Your task to perform on an android device: allow cookies in the chrome app Image 0: 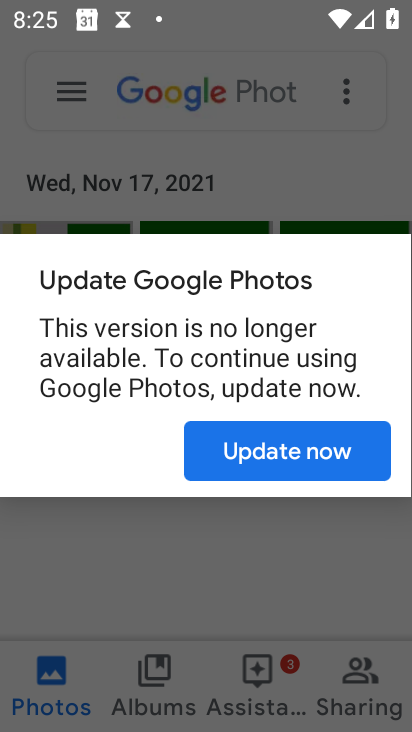
Step 0: press home button
Your task to perform on an android device: allow cookies in the chrome app Image 1: 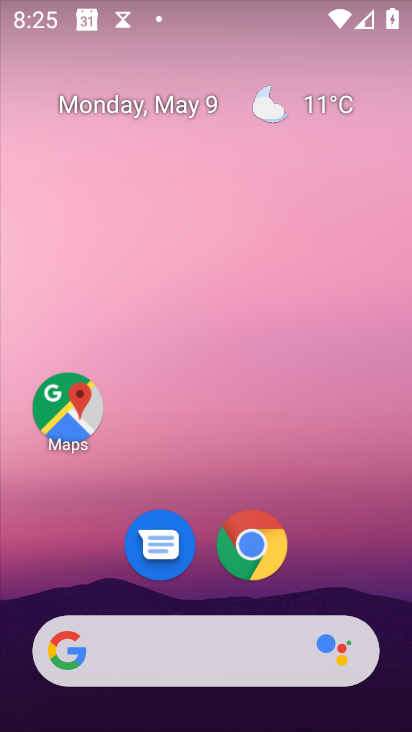
Step 1: click (245, 548)
Your task to perform on an android device: allow cookies in the chrome app Image 2: 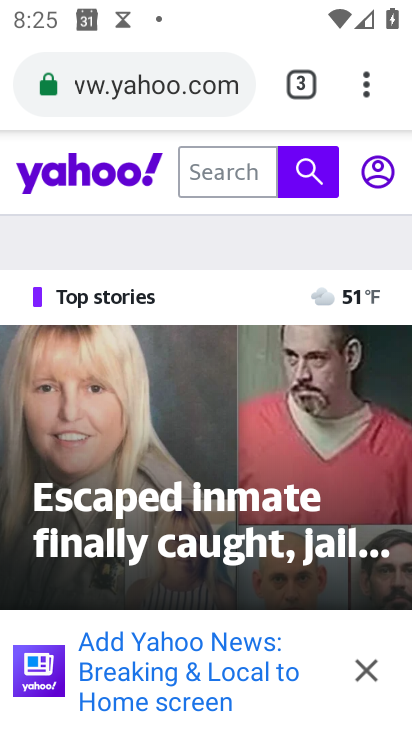
Step 2: click (367, 97)
Your task to perform on an android device: allow cookies in the chrome app Image 3: 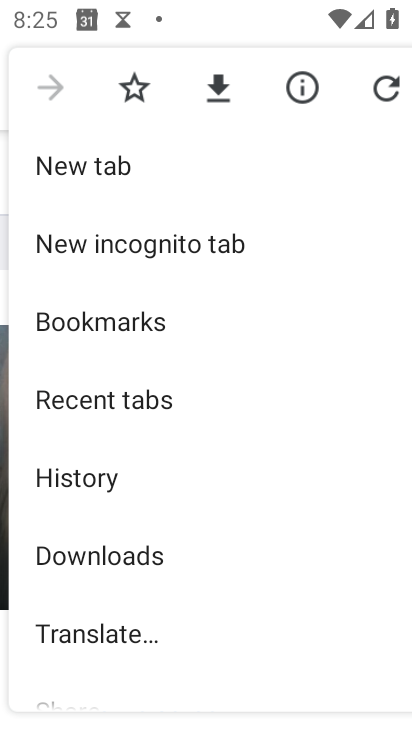
Step 3: drag from (178, 621) to (222, 329)
Your task to perform on an android device: allow cookies in the chrome app Image 4: 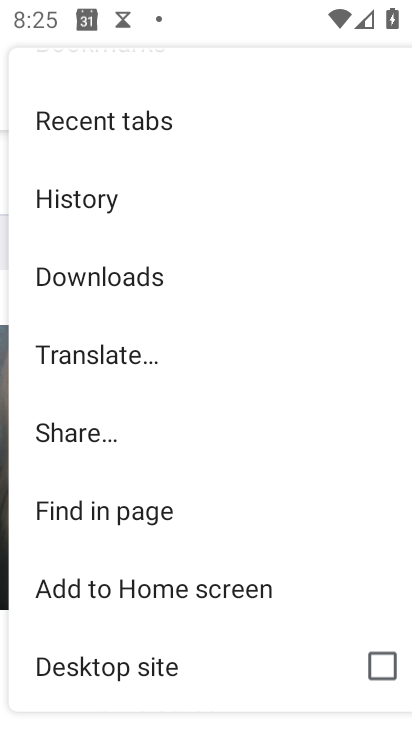
Step 4: drag from (210, 648) to (216, 300)
Your task to perform on an android device: allow cookies in the chrome app Image 5: 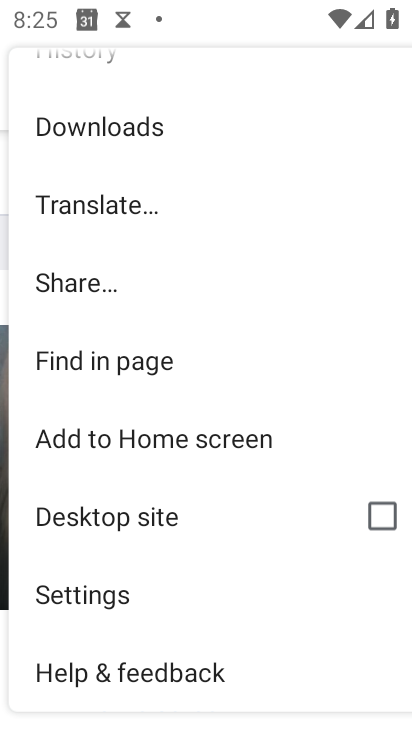
Step 5: click (108, 594)
Your task to perform on an android device: allow cookies in the chrome app Image 6: 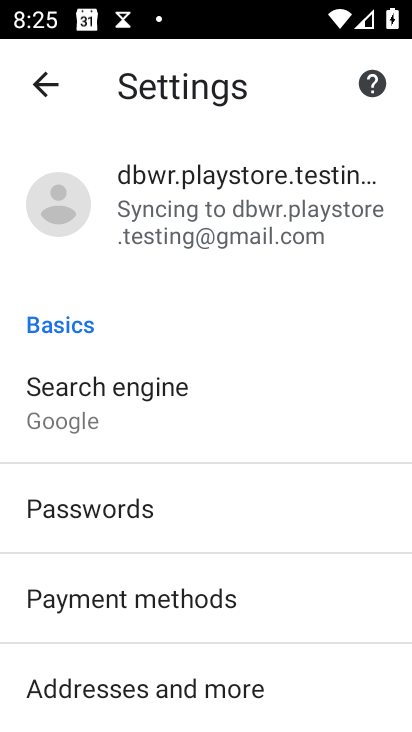
Step 6: drag from (186, 661) to (202, 228)
Your task to perform on an android device: allow cookies in the chrome app Image 7: 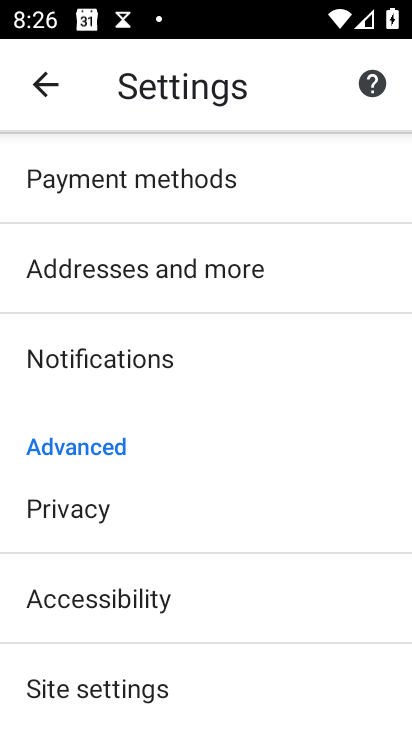
Step 7: drag from (261, 666) to (264, 308)
Your task to perform on an android device: allow cookies in the chrome app Image 8: 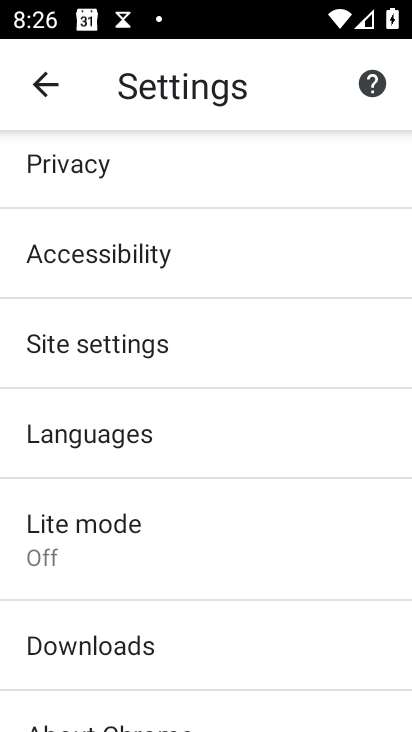
Step 8: click (141, 344)
Your task to perform on an android device: allow cookies in the chrome app Image 9: 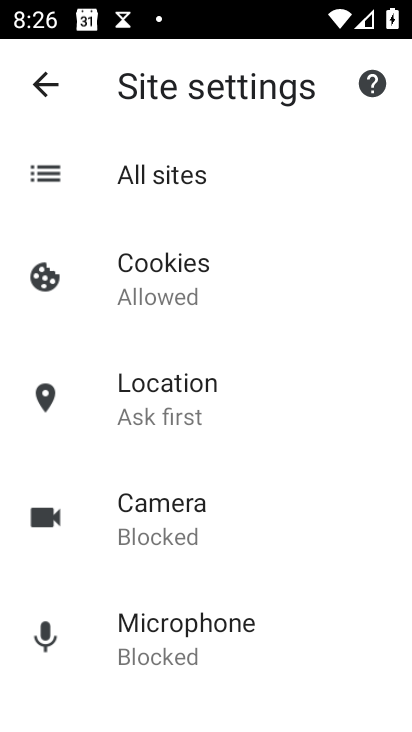
Step 9: click (155, 280)
Your task to perform on an android device: allow cookies in the chrome app Image 10: 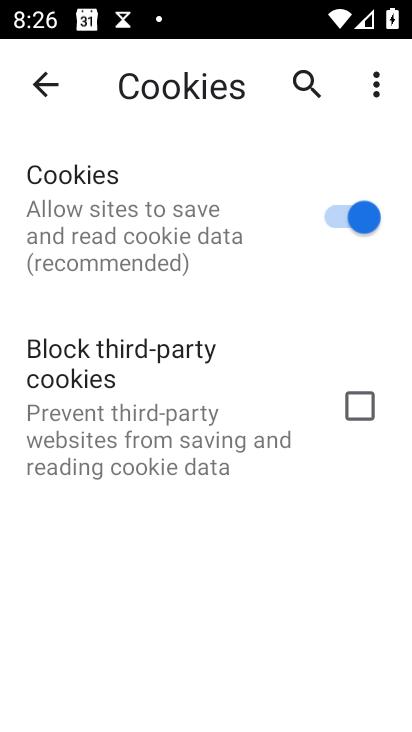
Step 10: task complete